Your task to perform on an android device: turn off airplane mode Image 0: 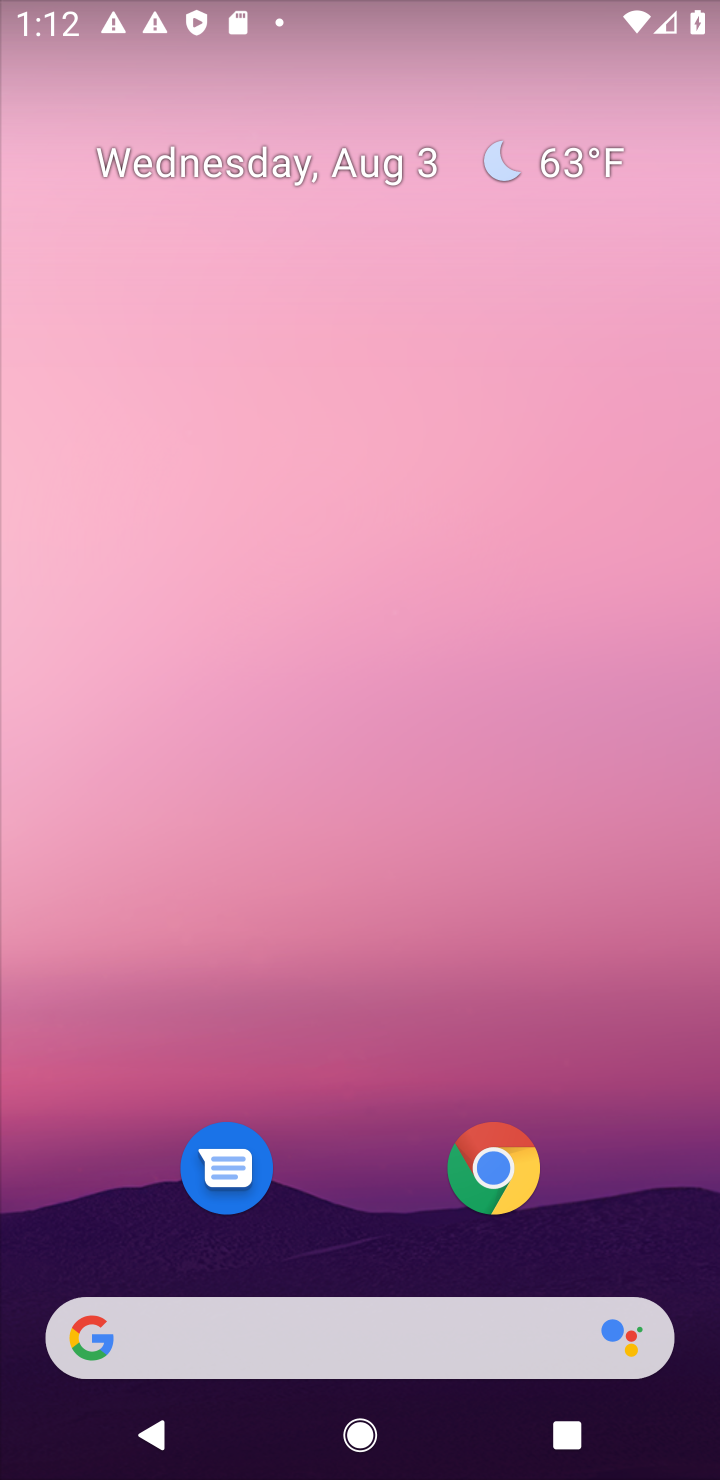
Step 0: drag from (643, 714) to (621, 259)
Your task to perform on an android device: turn off airplane mode Image 1: 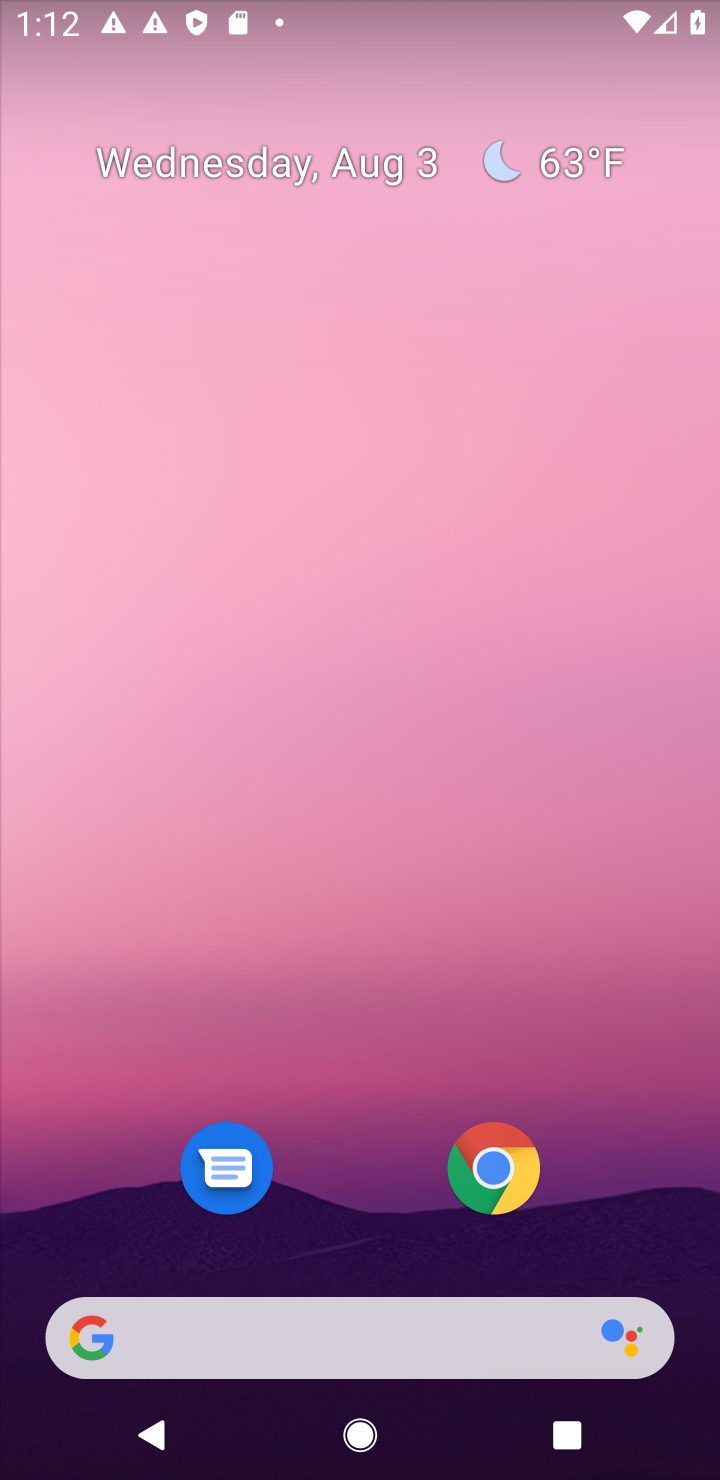
Step 1: drag from (661, 1177) to (617, 205)
Your task to perform on an android device: turn off airplane mode Image 2: 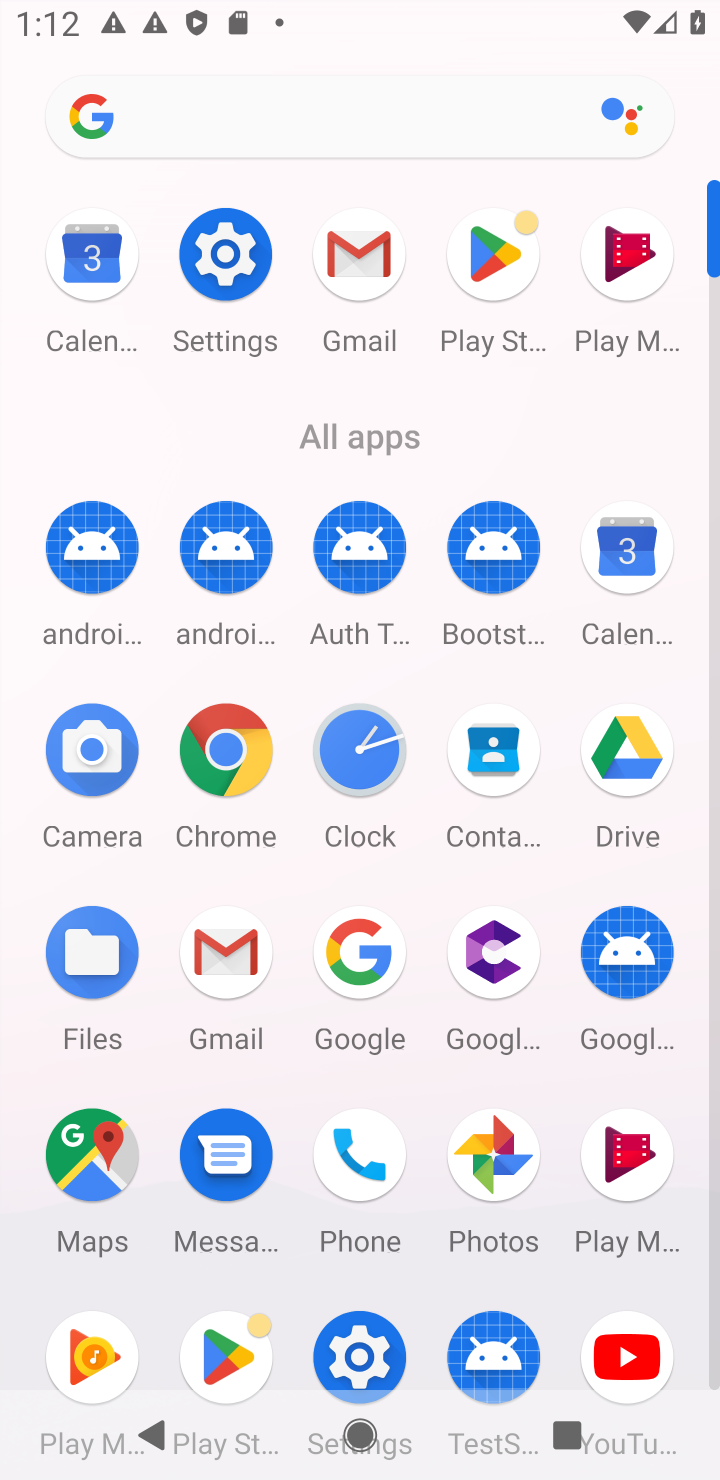
Step 2: click (356, 1355)
Your task to perform on an android device: turn off airplane mode Image 3: 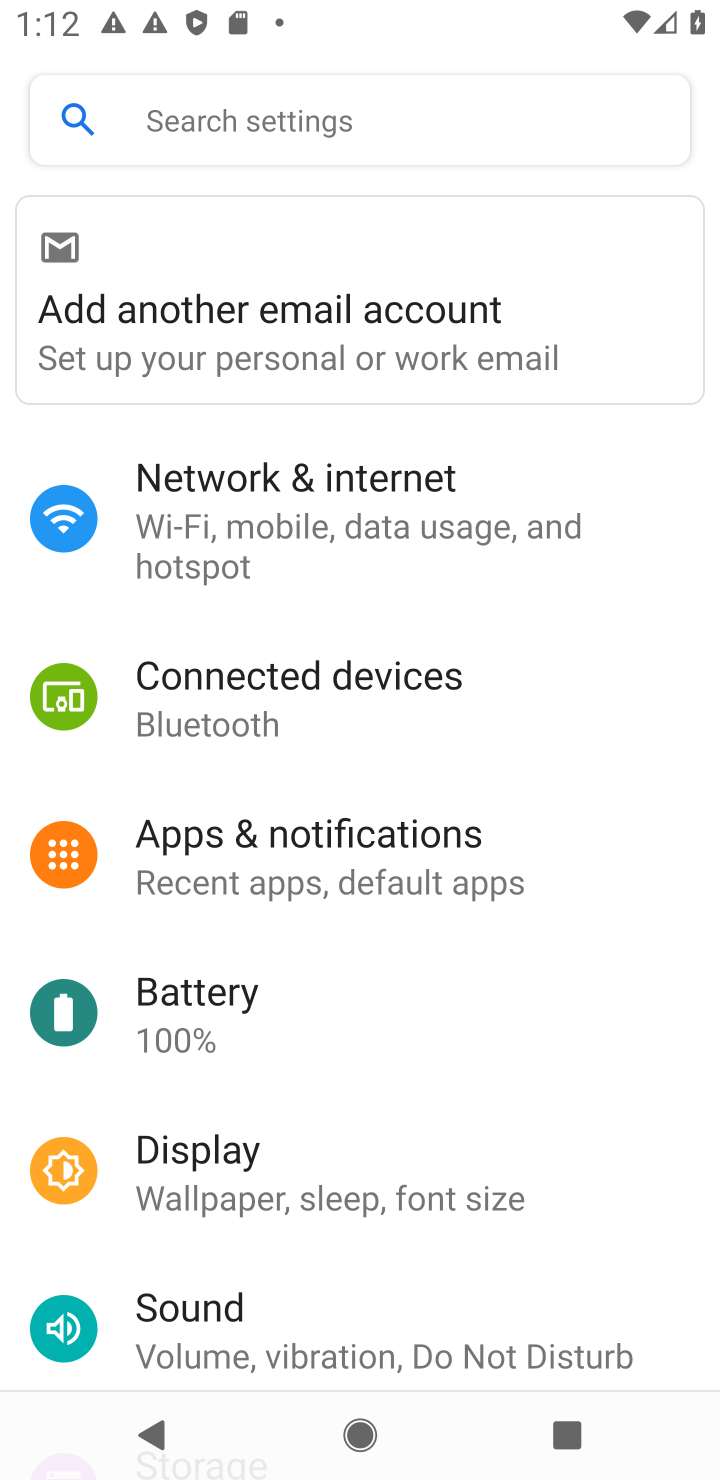
Step 3: click (234, 489)
Your task to perform on an android device: turn off airplane mode Image 4: 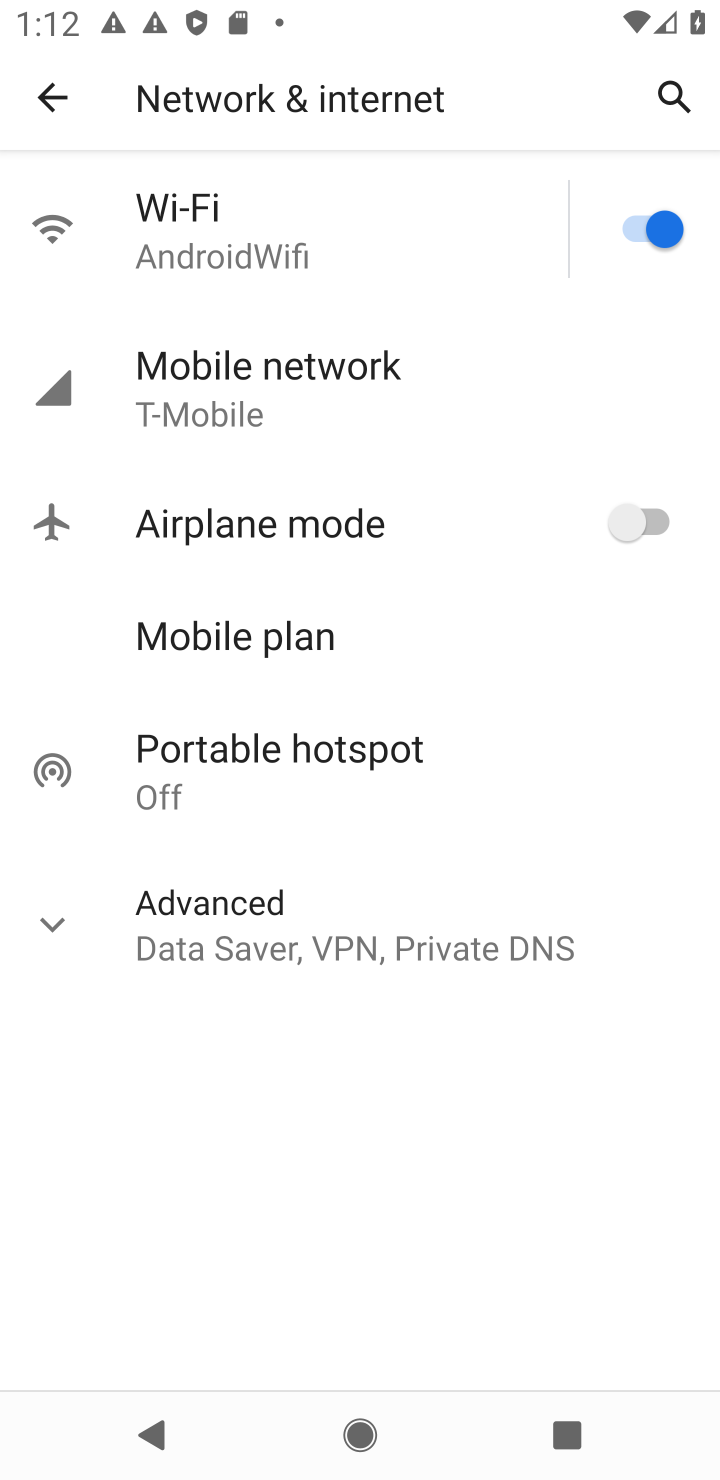
Step 4: task complete